Your task to perform on an android device: Go to sound settings Image 0: 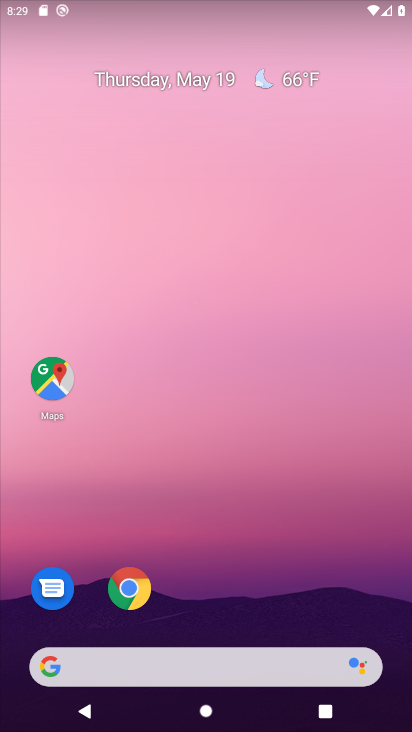
Step 0: drag from (378, 611) to (346, 171)
Your task to perform on an android device: Go to sound settings Image 1: 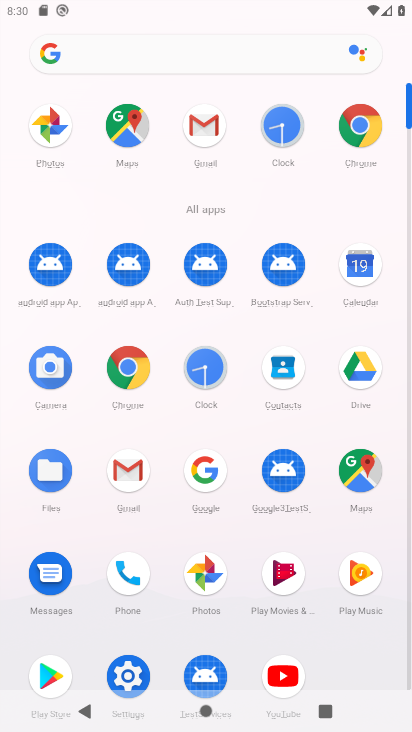
Step 1: drag from (325, 641) to (335, 391)
Your task to perform on an android device: Go to sound settings Image 2: 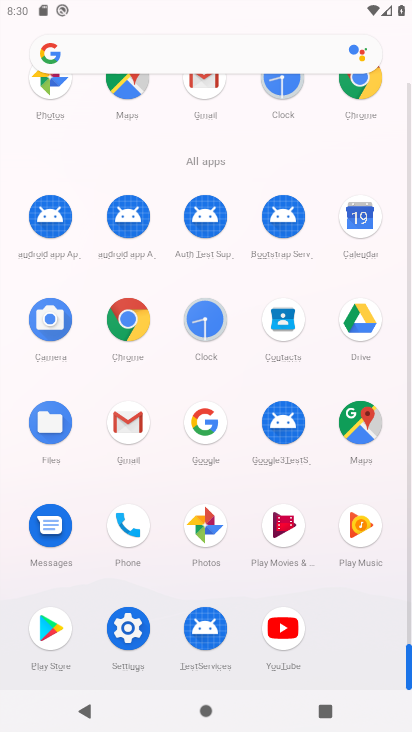
Step 2: click (126, 624)
Your task to perform on an android device: Go to sound settings Image 3: 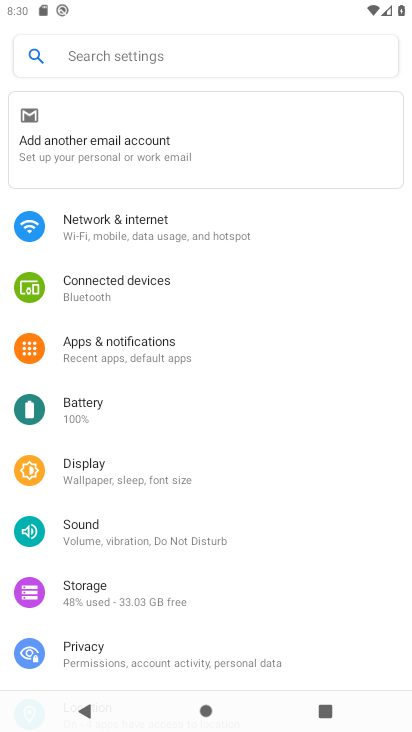
Step 3: drag from (328, 546) to (330, 414)
Your task to perform on an android device: Go to sound settings Image 4: 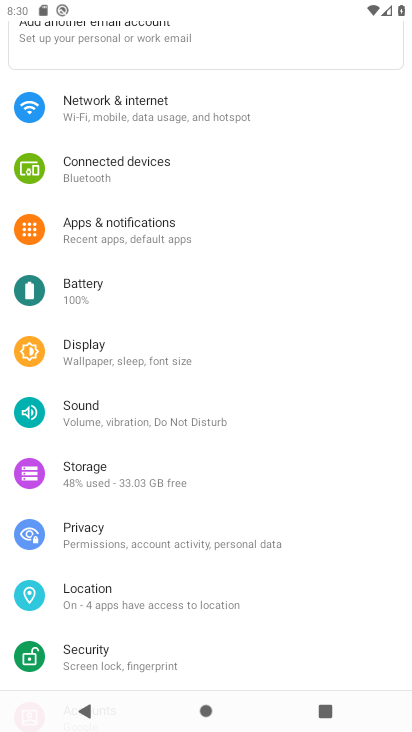
Step 4: drag from (340, 606) to (314, 419)
Your task to perform on an android device: Go to sound settings Image 5: 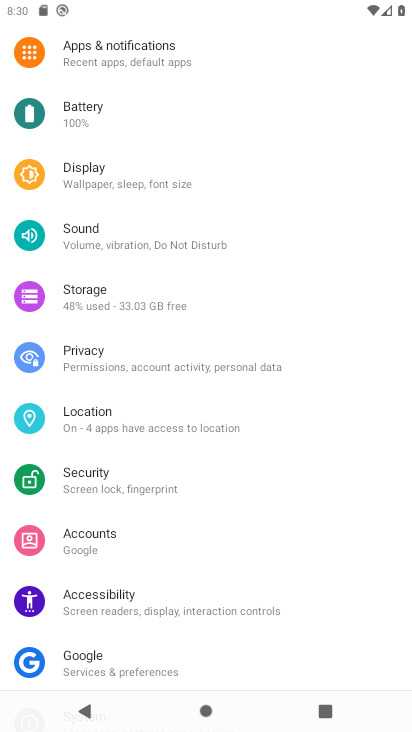
Step 5: drag from (329, 599) to (309, 448)
Your task to perform on an android device: Go to sound settings Image 6: 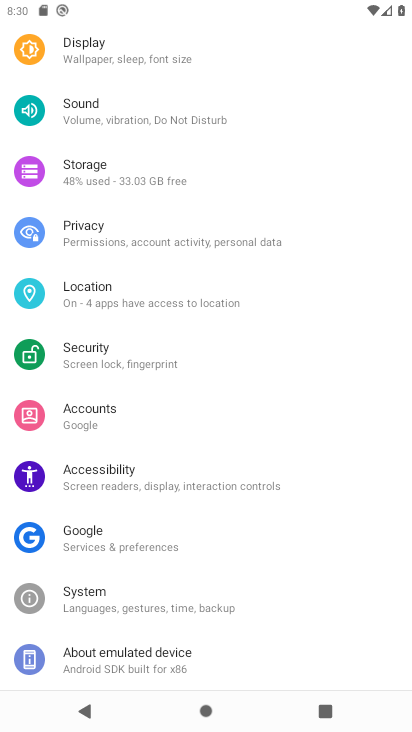
Step 6: drag from (309, 625) to (310, 439)
Your task to perform on an android device: Go to sound settings Image 7: 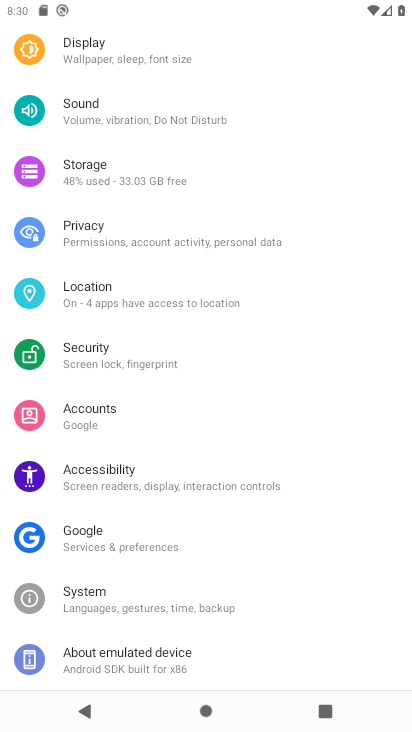
Step 7: drag from (318, 359) to (322, 469)
Your task to perform on an android device: Go to sound settings Image 8: 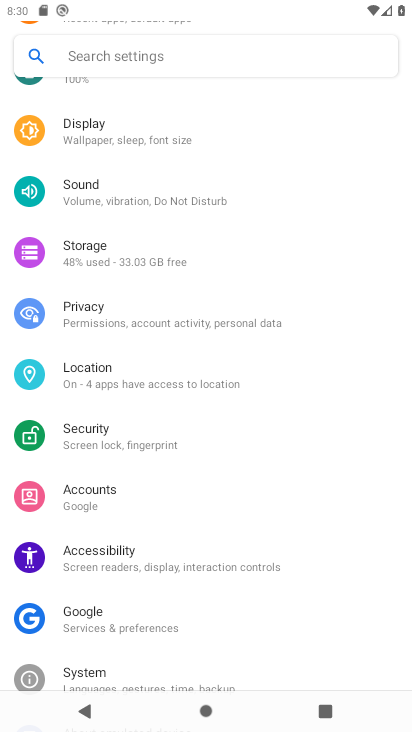
Step 8: drag from (330, 385) to (304, 504)
Your task to perform on an android device: Go to sound settings Image 9: 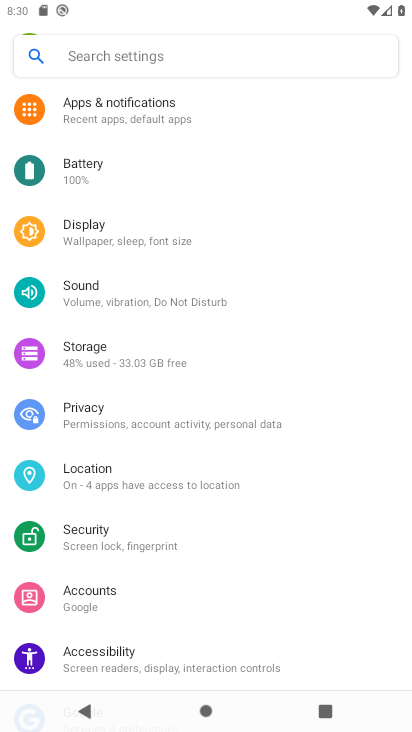
Step 9: drag from (323, 353) to (322, 552)
Your task to perform on an android device: Go to sound settings Image 10: 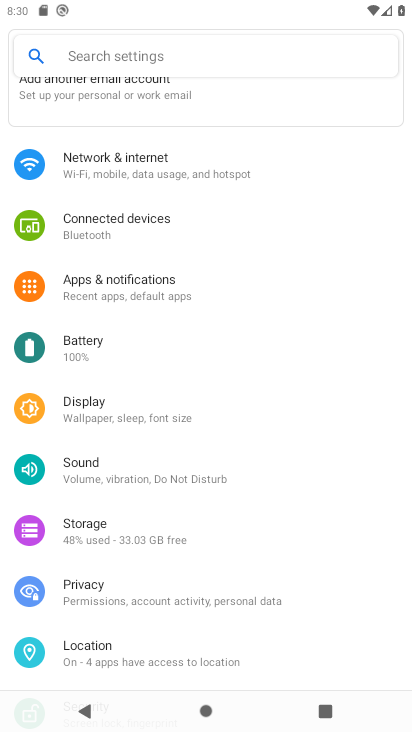
Step 10: drag from (317, 404) to (303, 552)
Your task to perform on an android device: Go to sound settings Image 11: 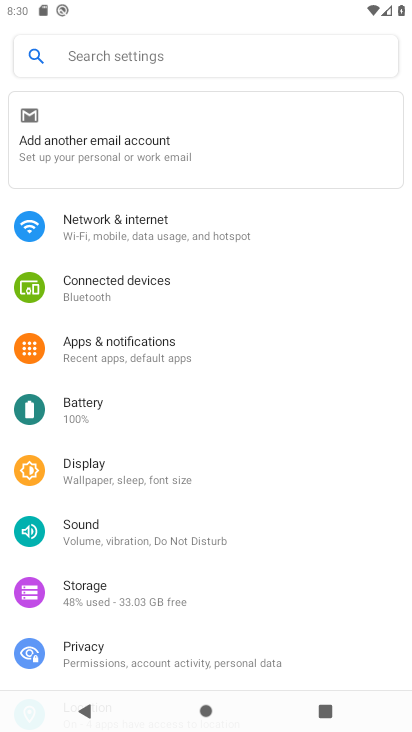
Step 11: click (233, 538)
Your task to perform on an android device: Go to sound settings Image 12: 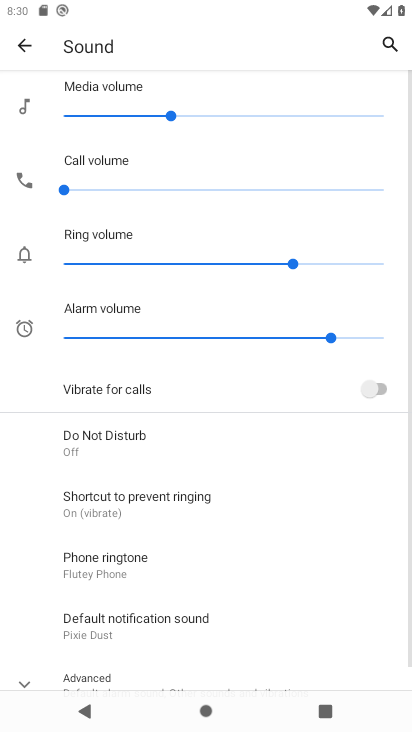
Step 12: task complete